Your task to perform on an android device: Open calendar and show me the first week of next month Image 0: 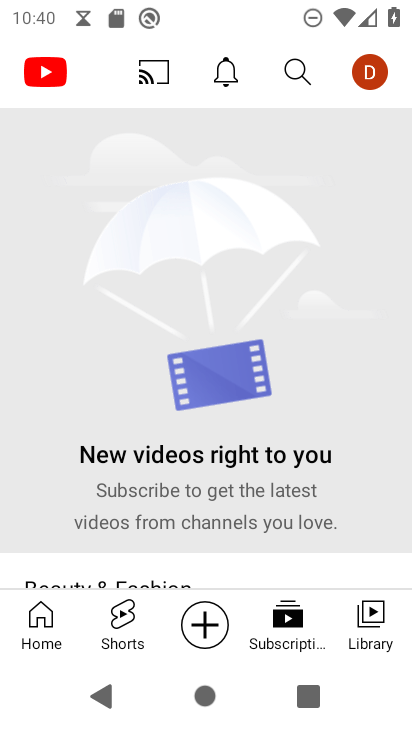
Step 0: press back button
Your task to perform on an android device: Open calendar and show me the first week of next month Image 1: 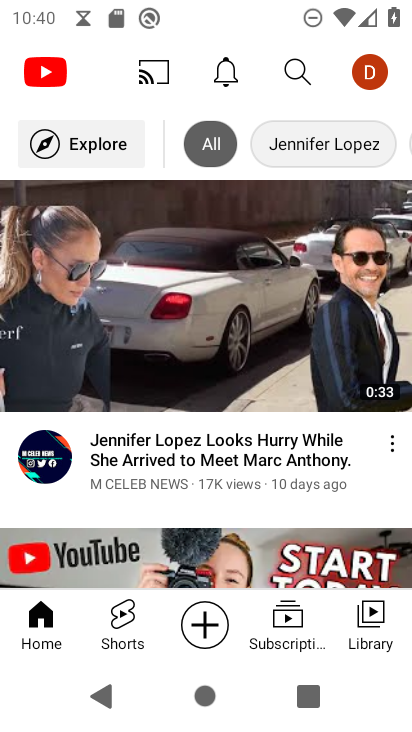
Step 1: press back button
Your task to perform on an android device: Open calendar and show me the first week of next month Image 2: 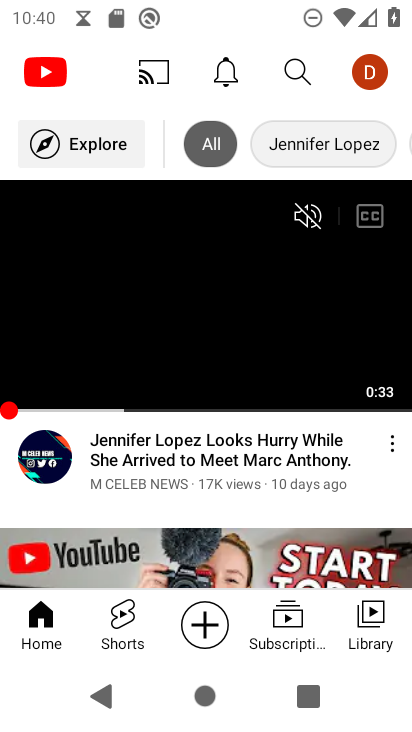
Step 2: press back button
Your task to perform on an android device: Open calendar and show me the first week of next month Image 3: 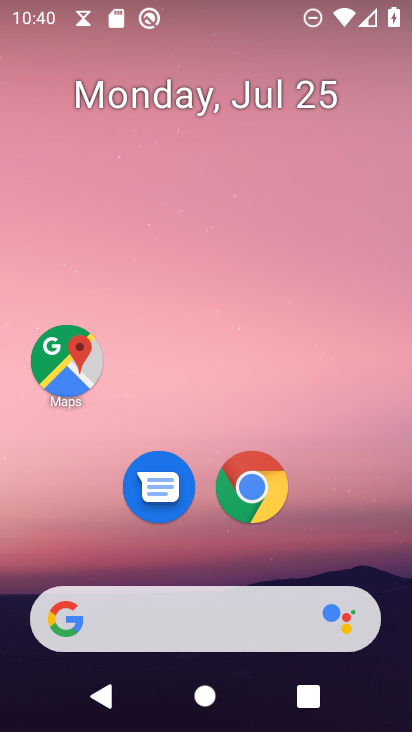
Step 3: drag from (170, 548) to (145, 18)
Your task to perform on an android device: Open calendar and show me the first week of next month Image 4: 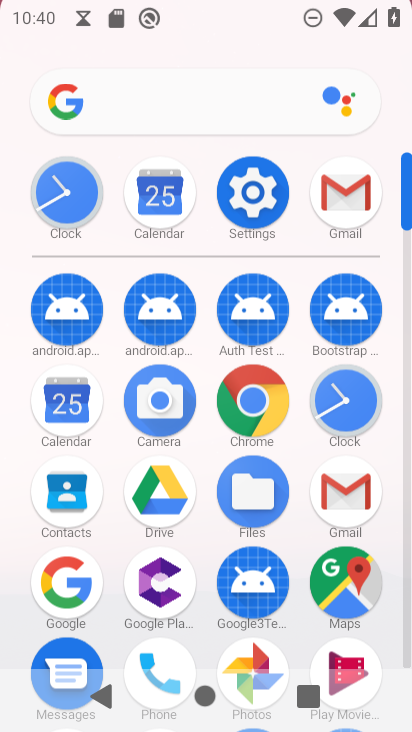
Step 4: click (87, 407)
Your task to perform on an android device: Open calendar and show me the first week of next month Image 5: 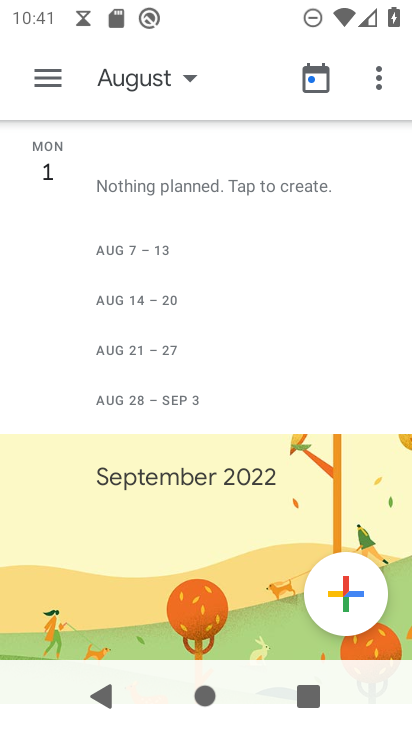
Step 5: click (177, 82)
Your task to perform on an android device: Open calendar and show me the first week of next month Image 6: 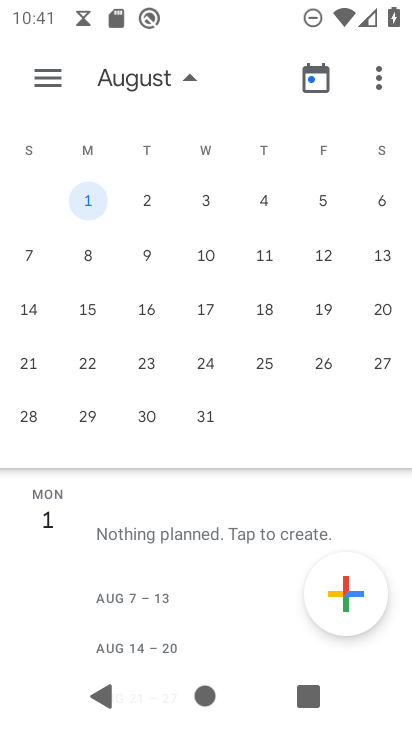
Step 6: click (89, 197)
Your task to perform on an android device: Open calendar and show me the first week of next month Image 7: 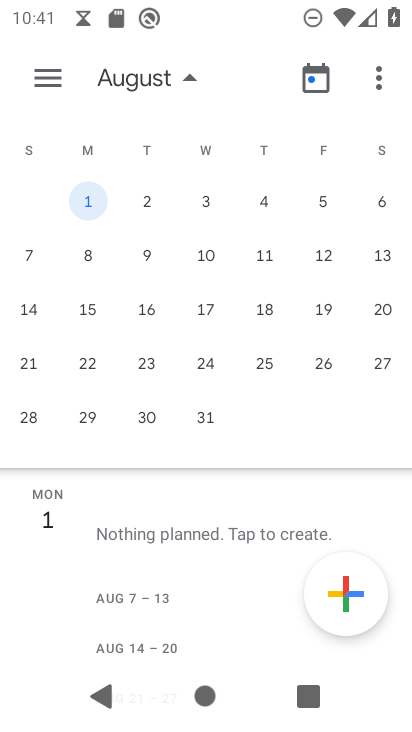
Step 7: click (97, 198)
Your task to perform on an android device: Open calendar and show me the first week of next month Image 8: 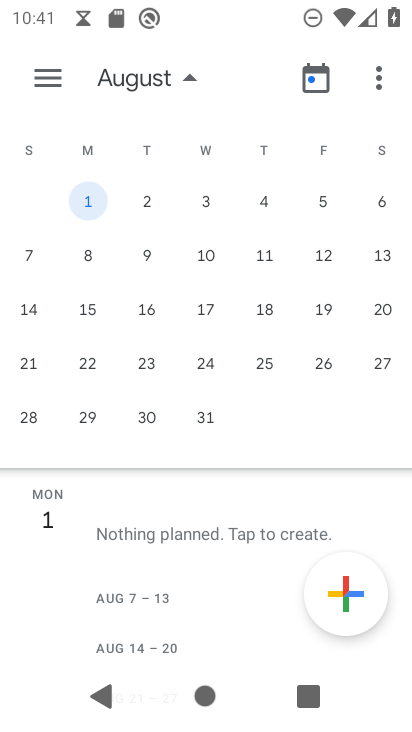
Step 8: task complete